Your task to perform on an android device: toggle airplane mode Image 0: 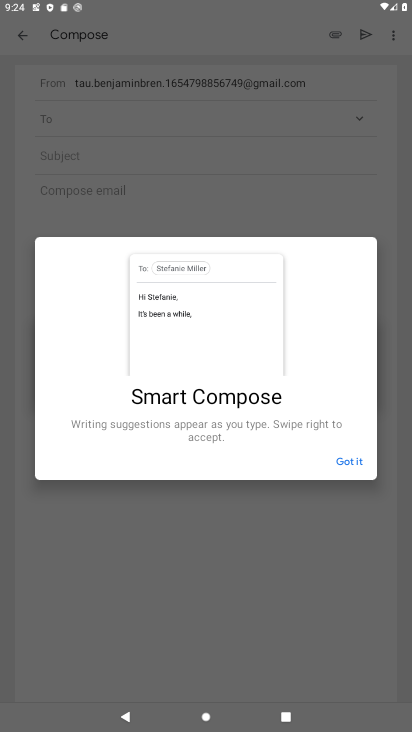
Step 0: press home button
Your task to perform on an android device: toggle airplane mode Image 1: 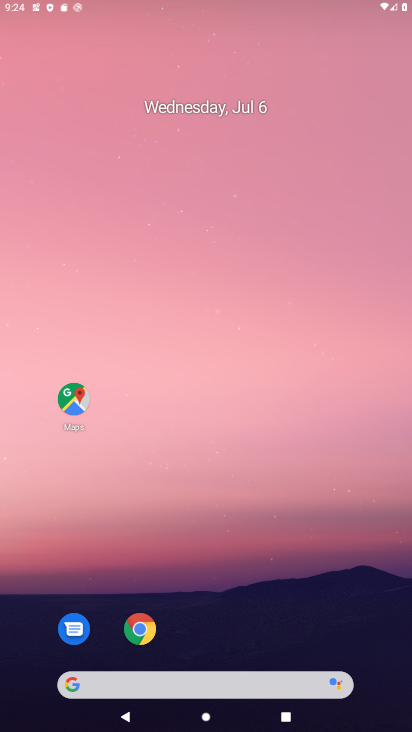
Step 1: drag from (249, 631) to (265, 61)
Your task to perform on an android device: toggle airplane mode Image 2: 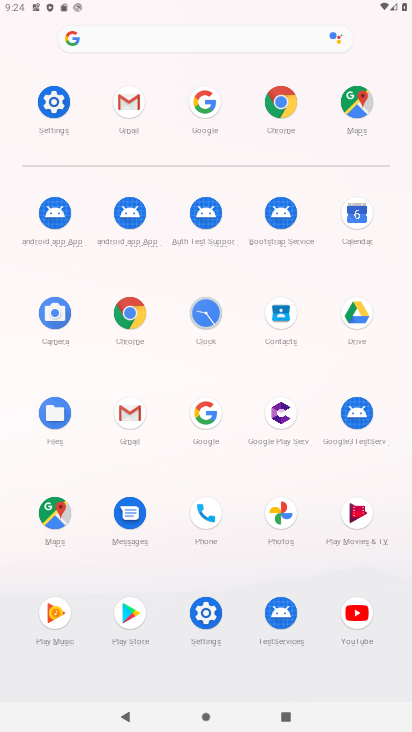
Step 2: click (51, 99)
Your task to perform on an android device: toggle airplane mode Image 3: 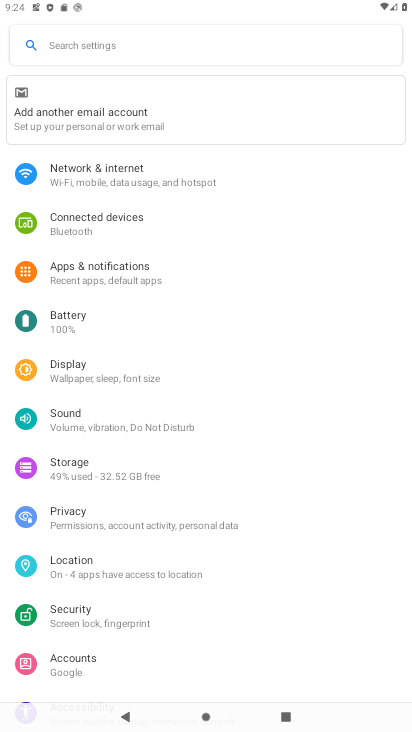
Step 3: click (82, 179)
Your task to perform on an android device: toggle airplane mode Image 4: 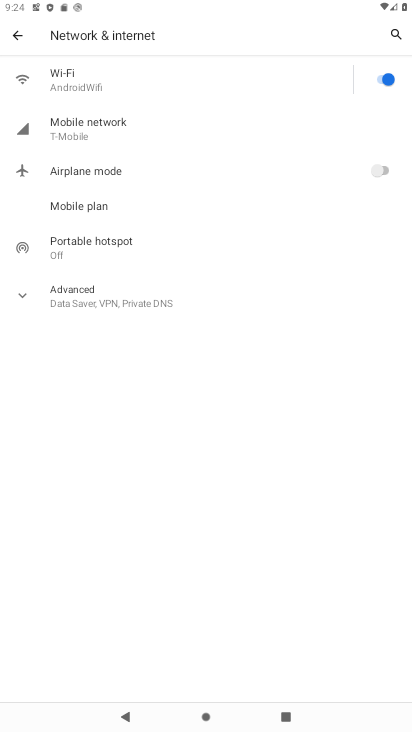
Step 4: click (382, 164)
Your task to perform on an android device: toggle airplane mode Image 5: 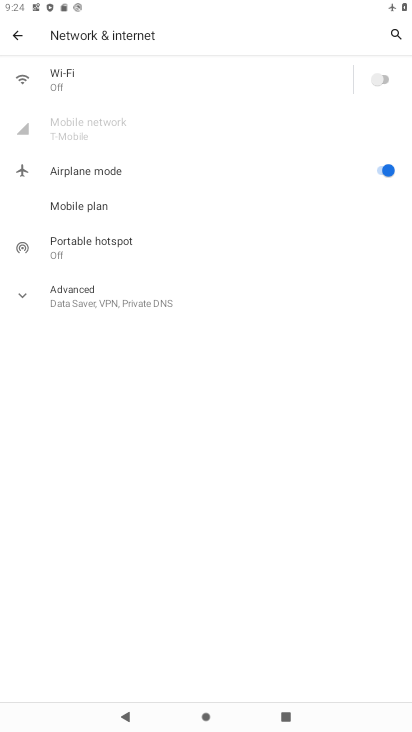
Step 5: task complete